Your task to perform on an android device: uninstall "Etsy: Buy & Sell Unique Items" Image 0: 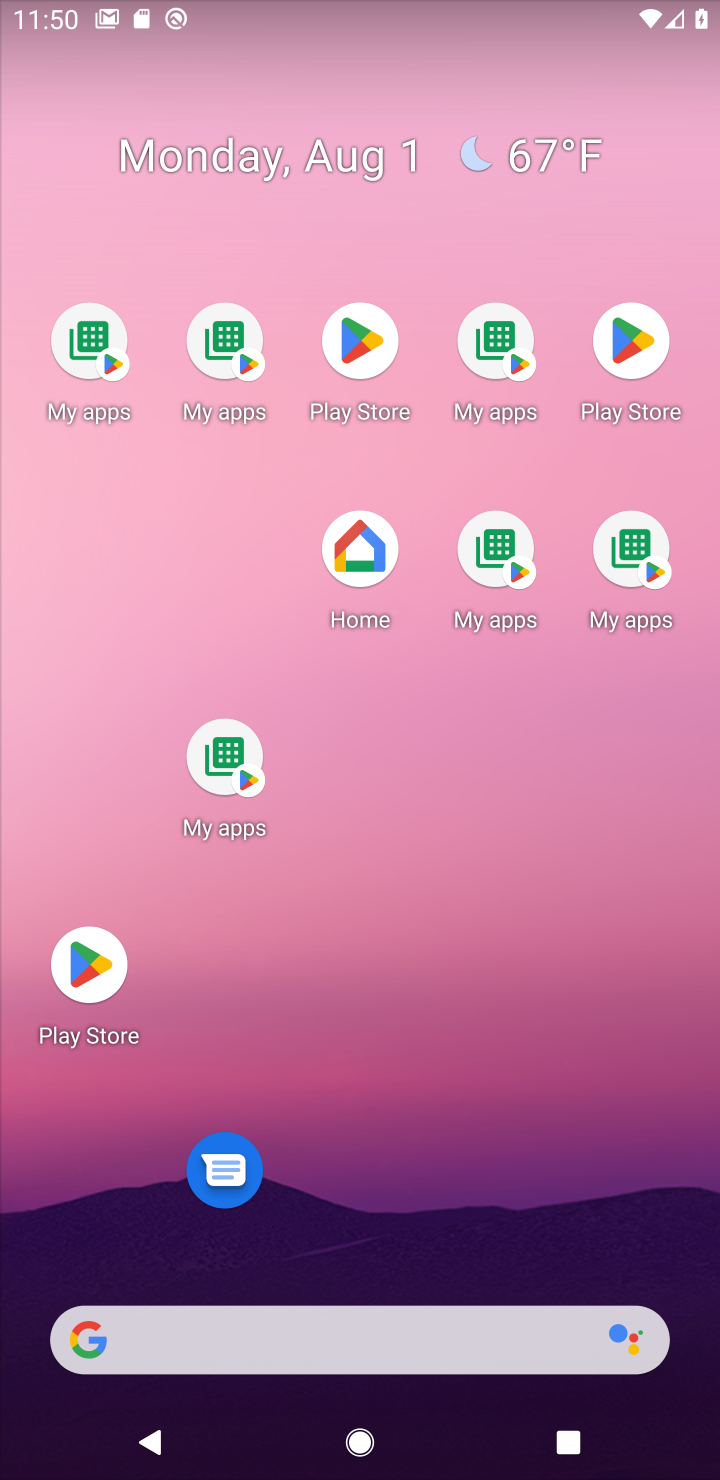
Step 0: press back button
Your task to perform on an android device: uninstall "Etsy: Buy & Sell Unique Items" Image 1: 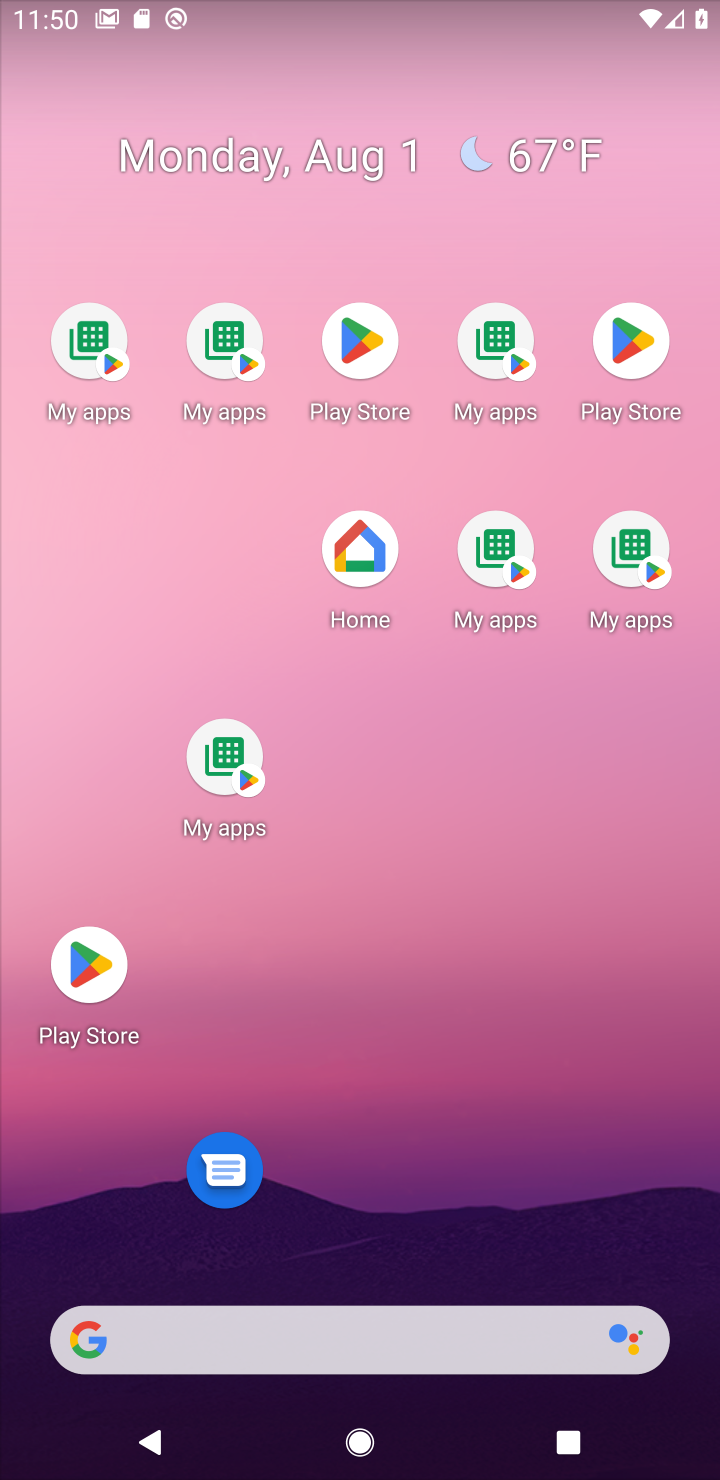
Step 1: click (321, 298)
Your task to perform on an android device: uninstall "Etsy: Buy & Sell Unique Items" Image 2: 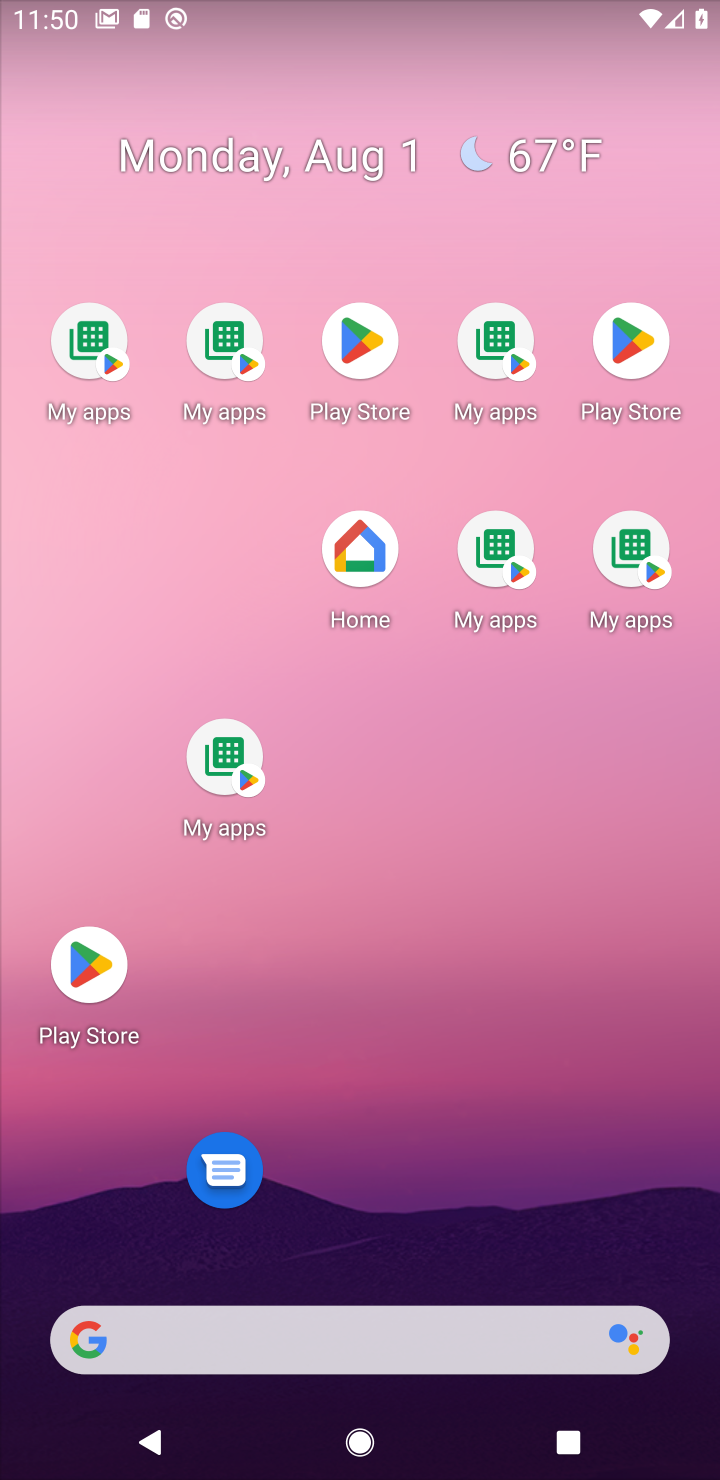
Step 2: drag from (462, 242) to (442, 114)
Your task to perform on an android device: uninstall "Etsy: Buy & Sell Unique Items" Image 3: 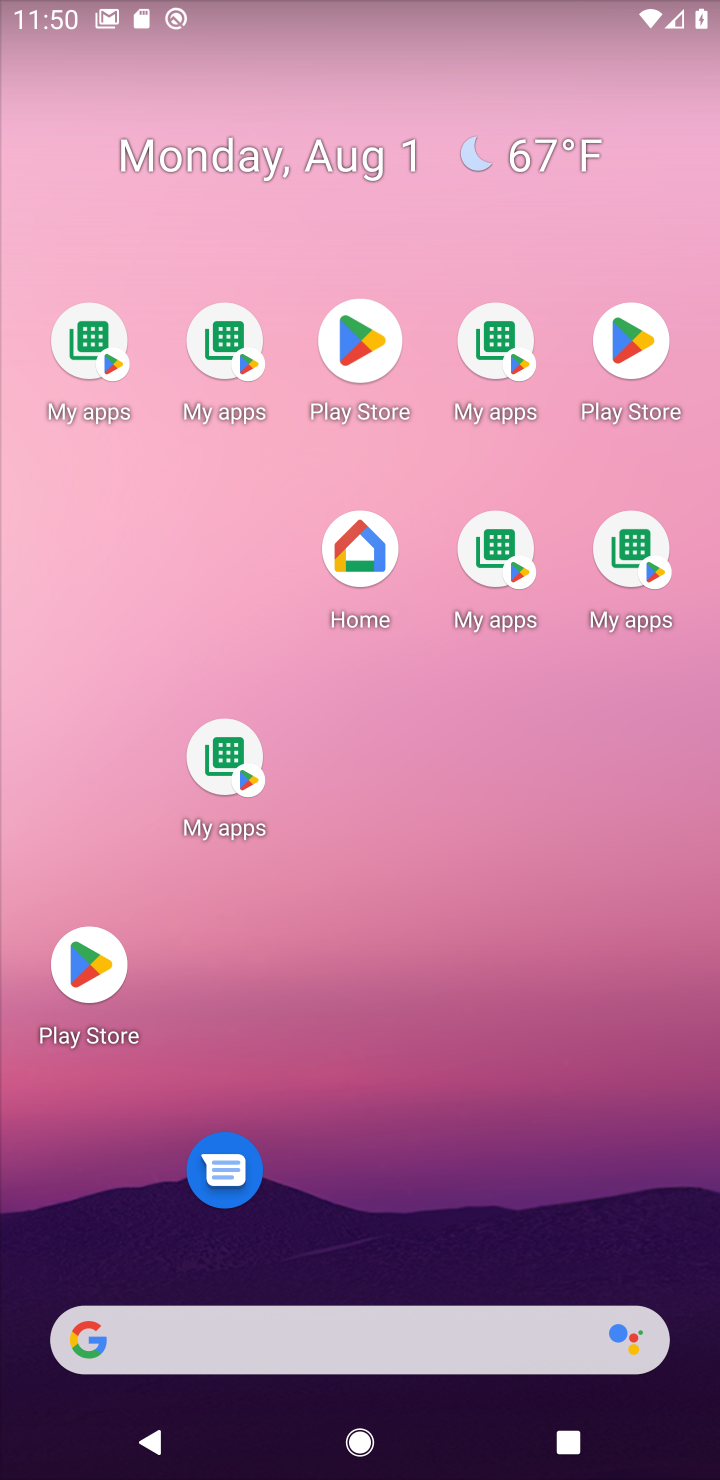
Step 3: click (444, 262)
Your task to perform on an android device: uninstall "Etsy: Buy & Sell Unique Items" Image 4: 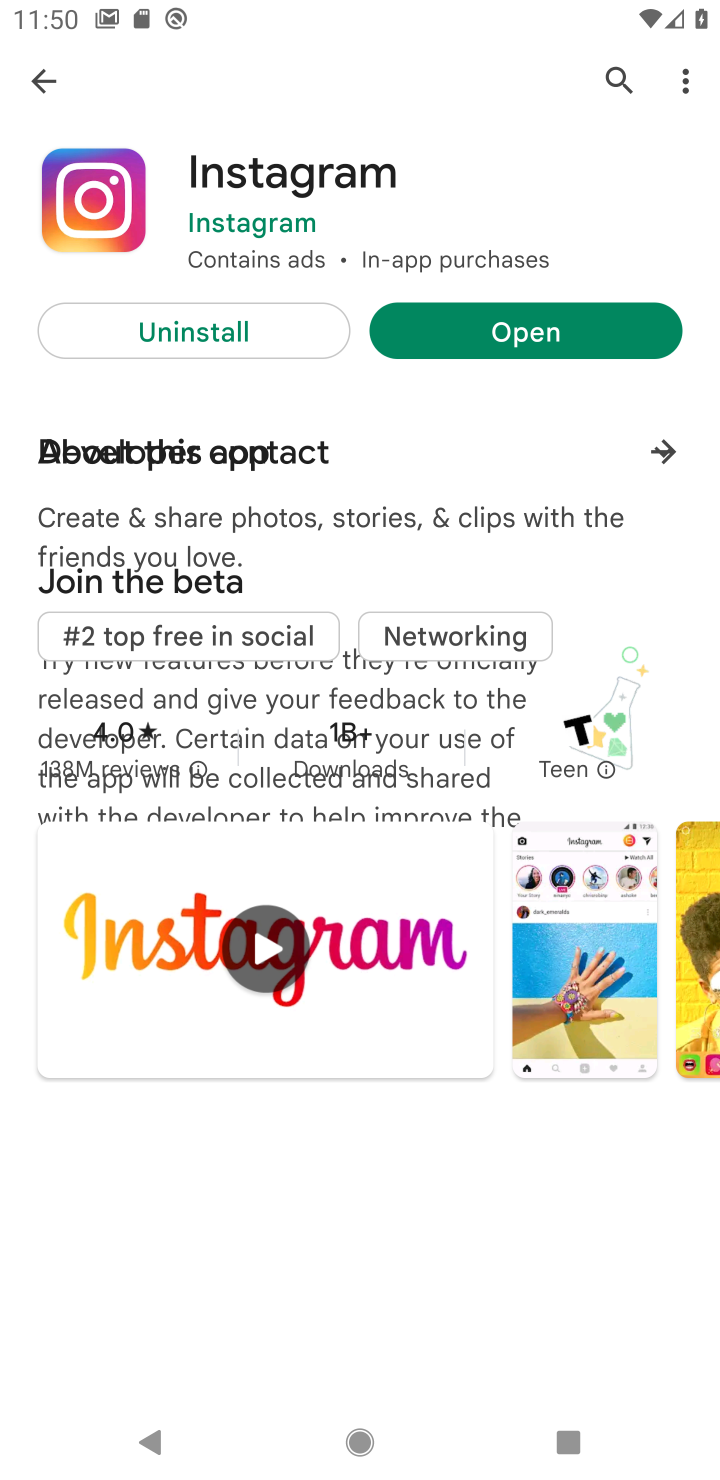
Step 4: click (627, 78)
Your task to perform on an android device: uninstall "Etsy: Buy & Sell Unique Items" Image 5: 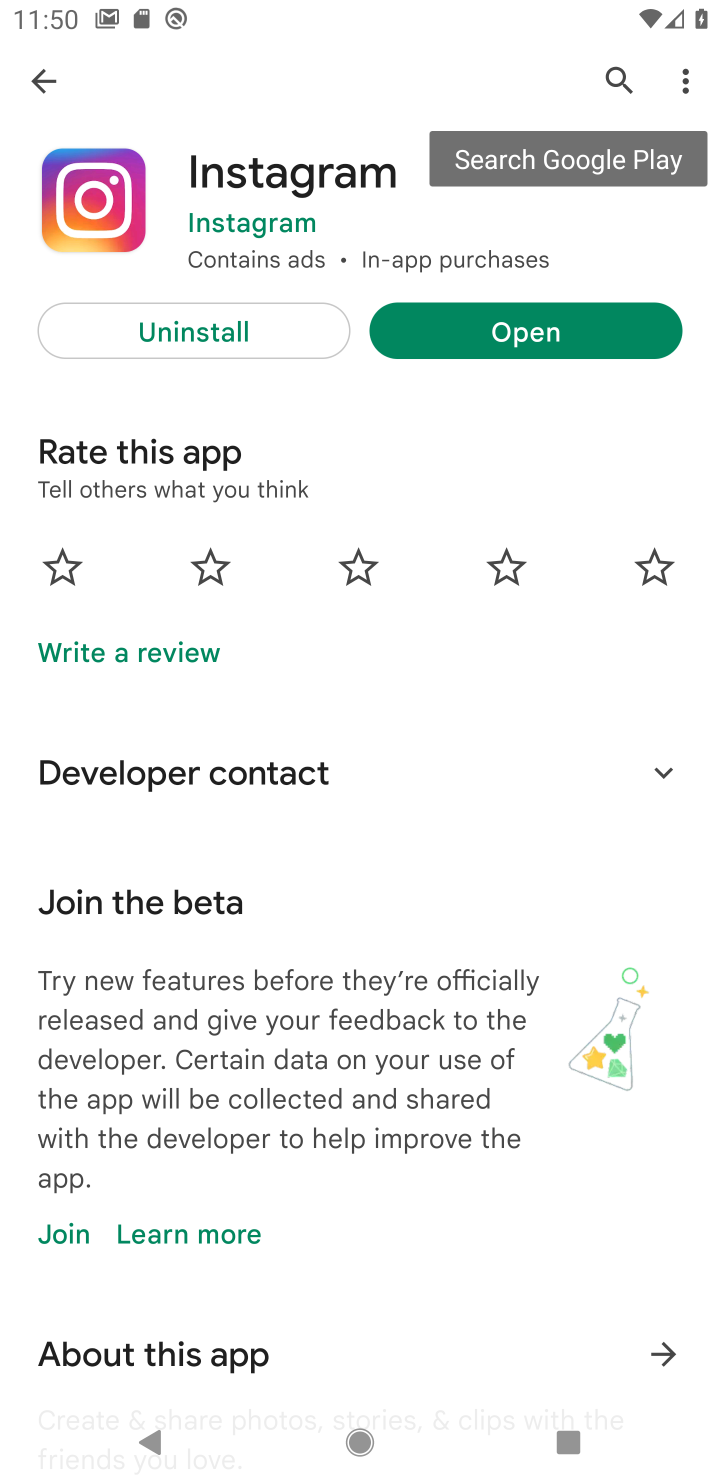
Step 5: click (635, 81)
Your task to perform on an android device: uninstall "Etsy: Buy & Sell Unique Items" Image 6: 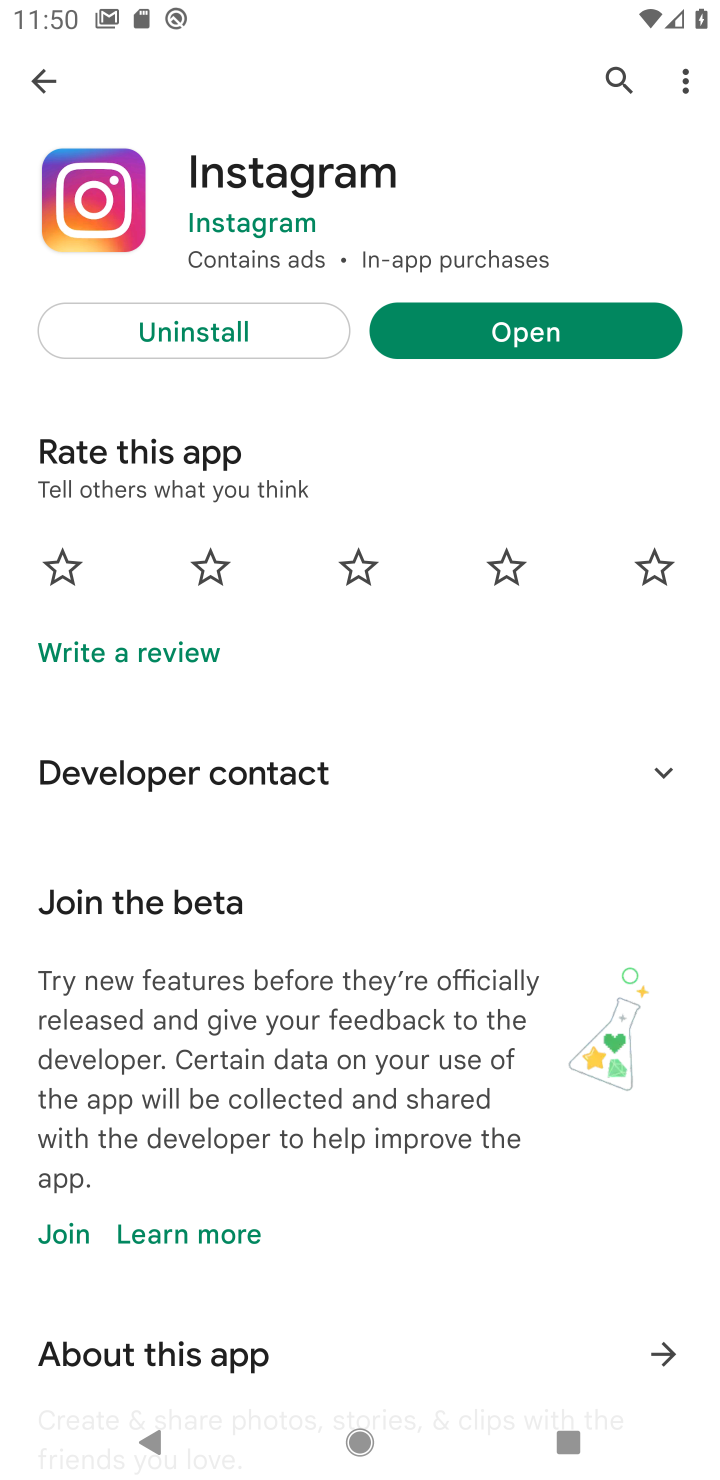
Step 6: click (607, 71)
Your task to perform on an android device: uninstall "Etsy: Buy & Sell Unique Items" Image 7: 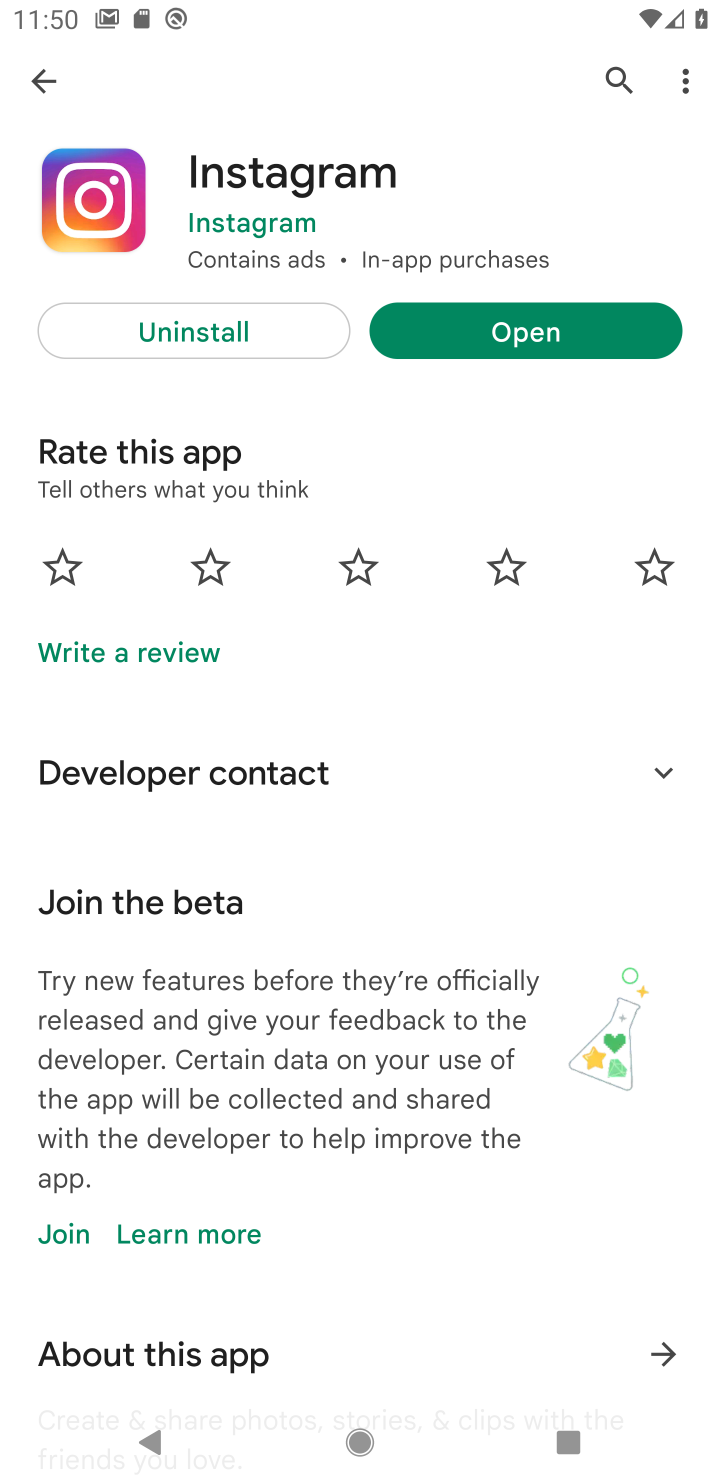
Step 7: click (609, 75)
Your task to perform on an android device: uninstall "Etsy: Buy & Sell Unique Items" Image 8: 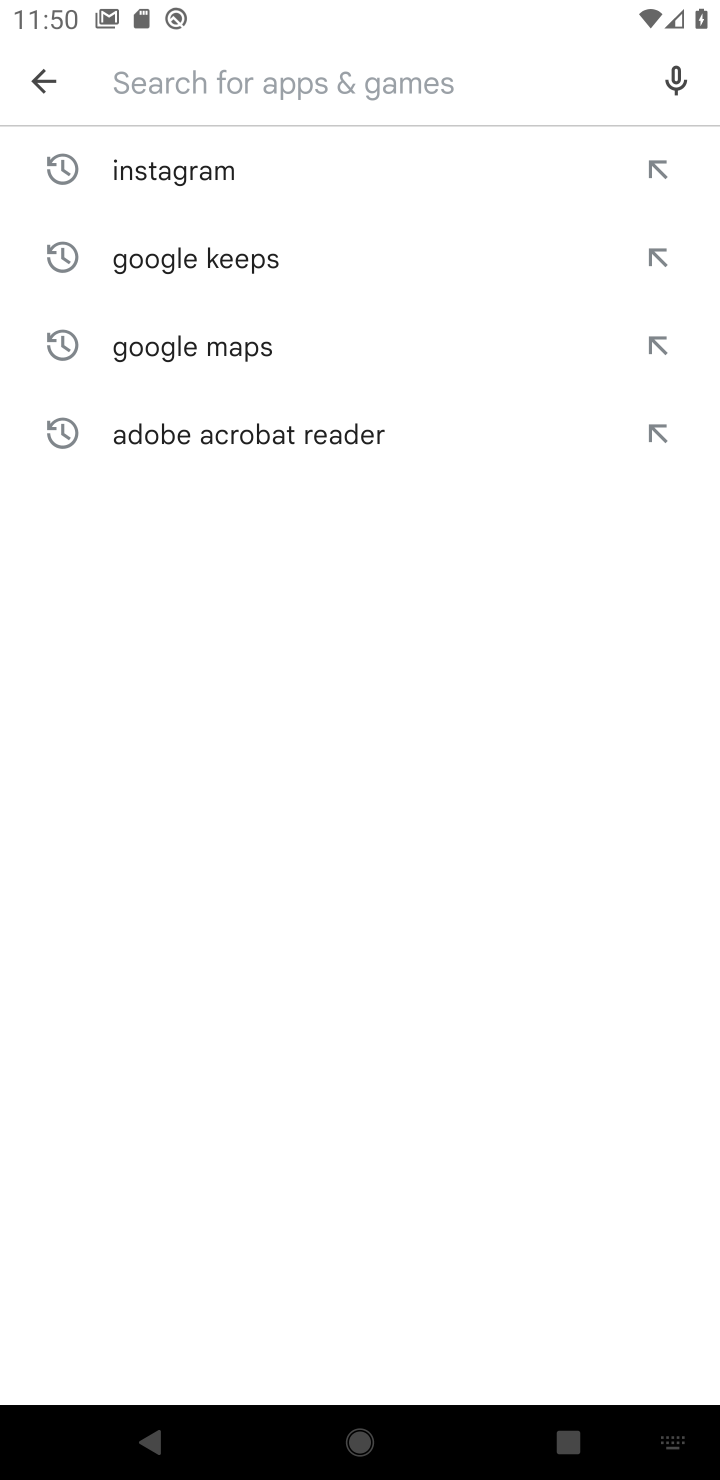
Step 8: type "etsy"
Your task to perform on an android device: uninstall "Etsy: Buy & Sell Unique Items" Image 9: 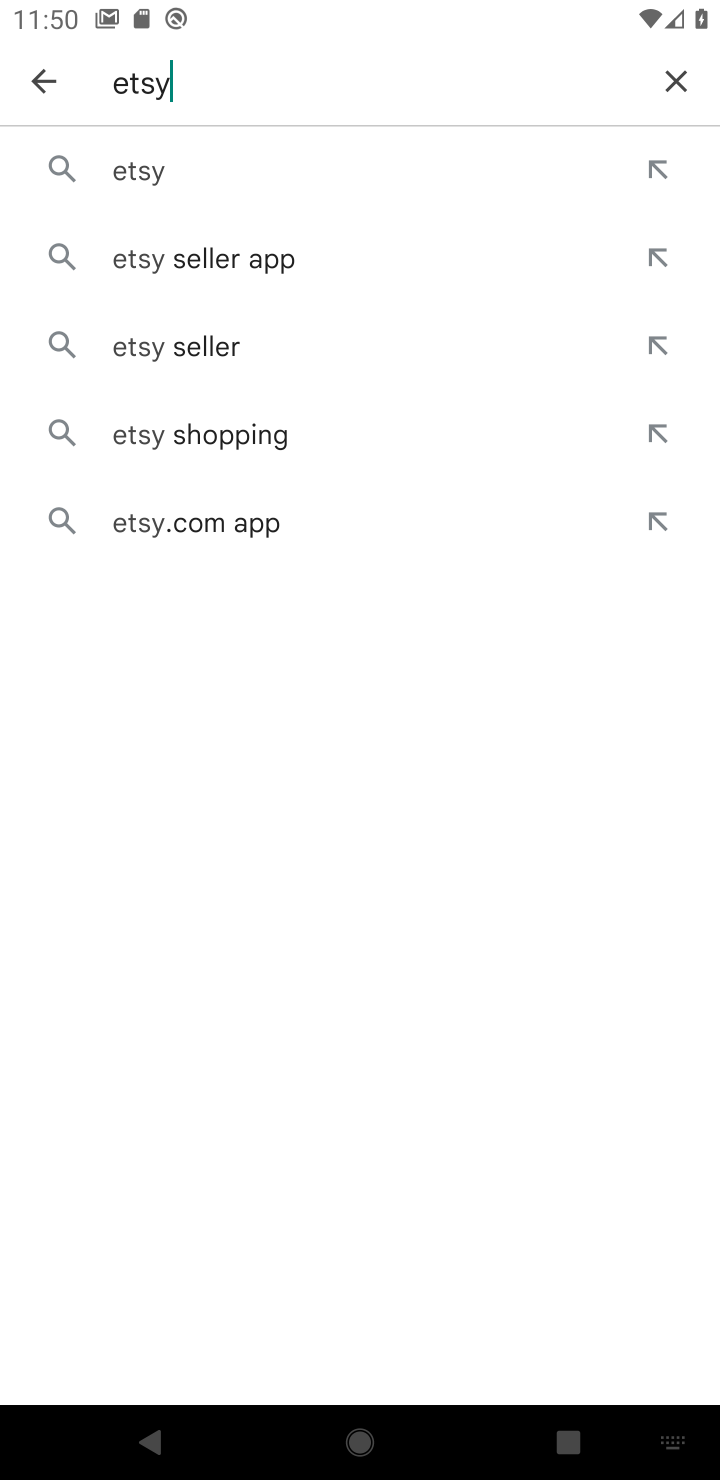
Step 9: click (148, 174)
Your task to perform on an android device: uninstall "Etsy: Buy & Sell Unique Items" Image 10: 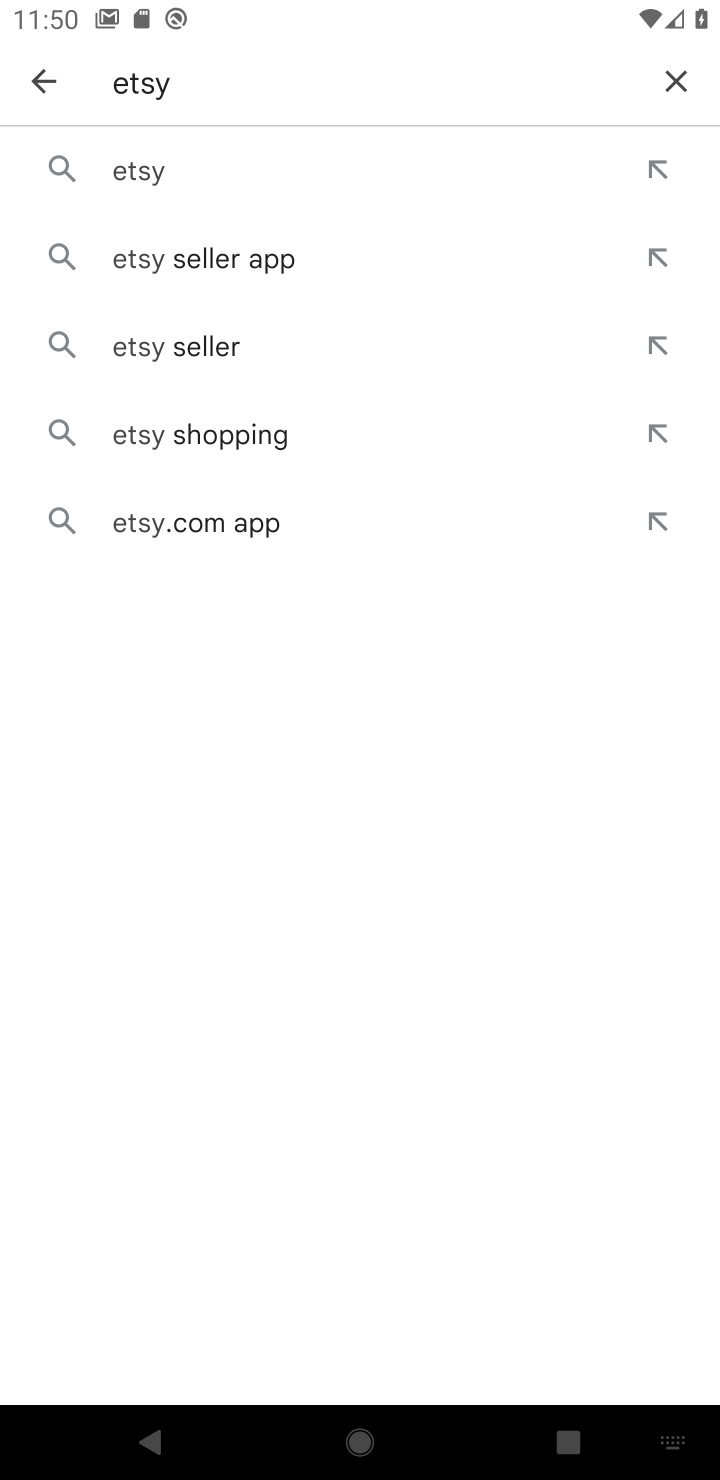
Step 10: click (148, 174)
Your task to perform on an android device: uninstall "Etsy: Buy & Sell Unique Items" Image 11: 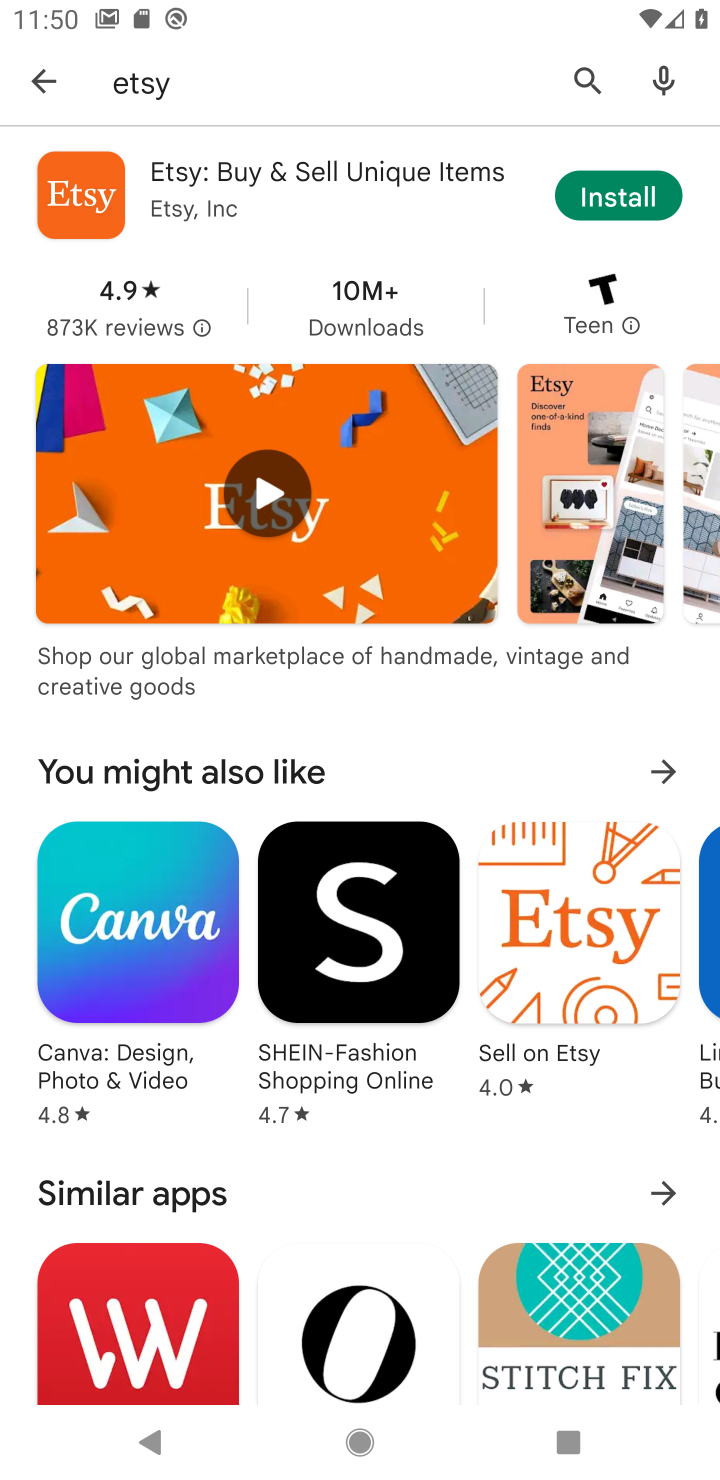
Step 11: click (633, 193)
Your task to perform on an android device: uninstall "Etsy: Buy & Sell Unique Items" Image 12: 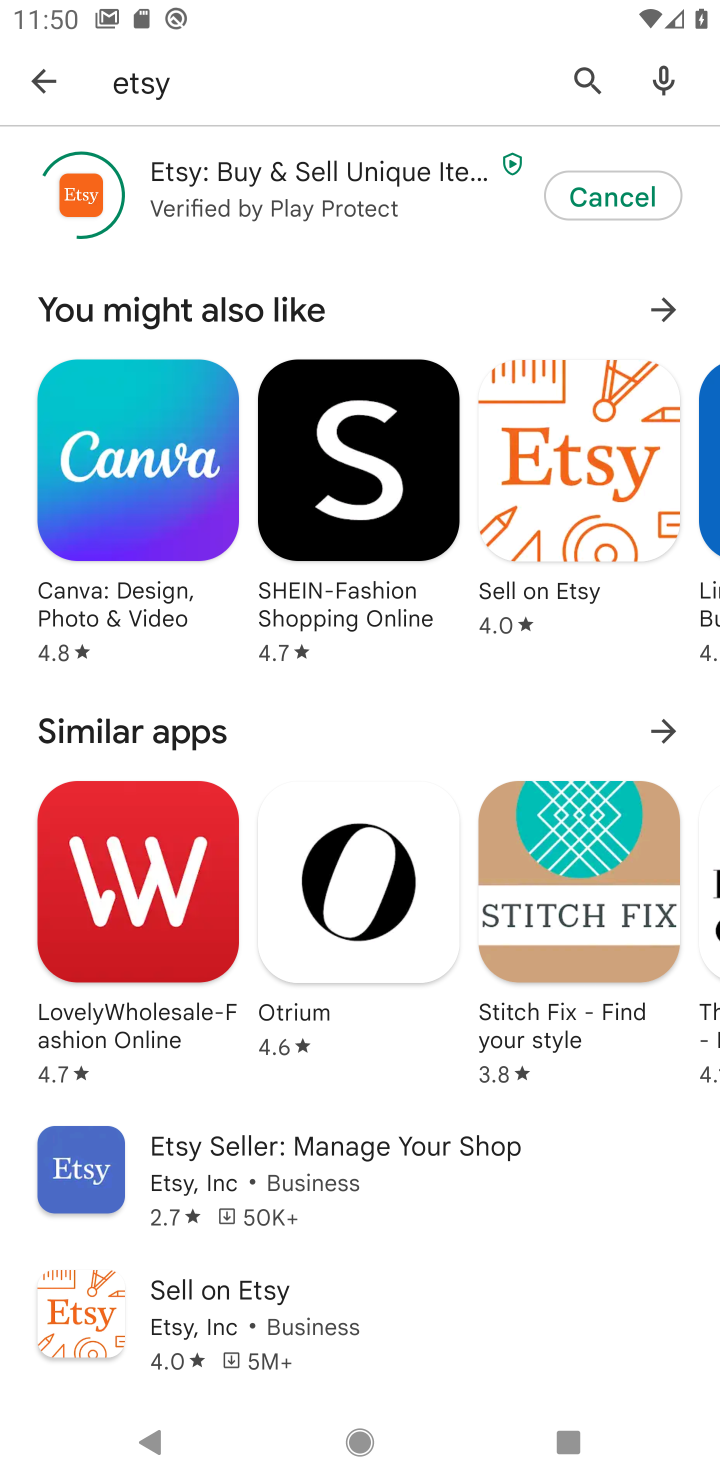
Step 12: click (615, 210)
Your task to perform on an android device: uninstall "Etsy: Buy & Sell Unique Items" Image 13: 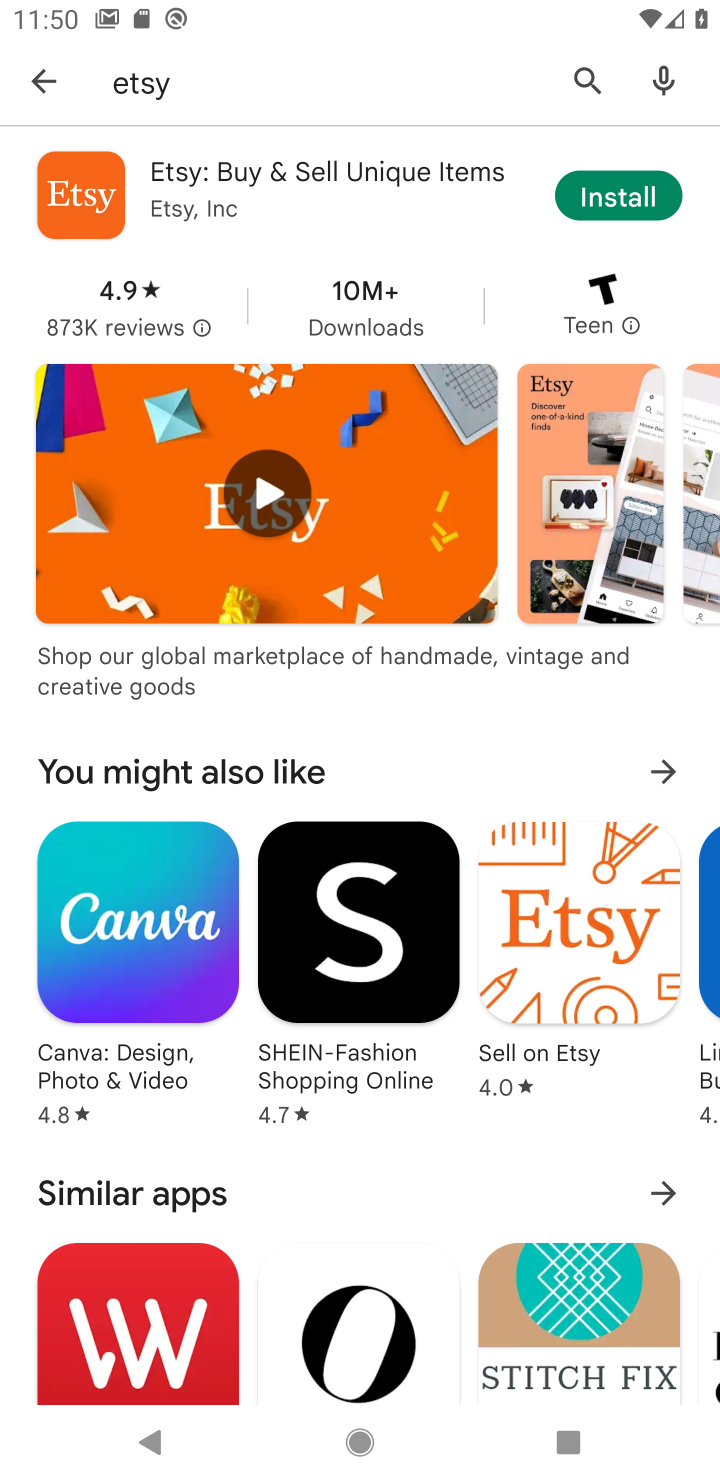
Step 13: task complete